Your task to perform on an android device: find photos in the google photos app Image 0: 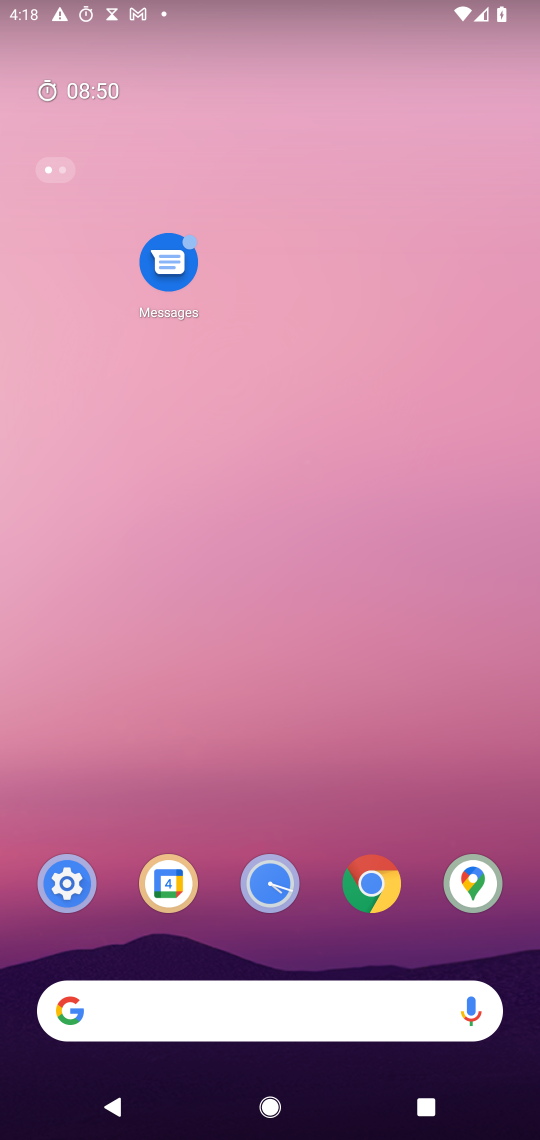
Step 0: drag from (307, 801) to (310, 156)
Your task to perform on an android device: find photos in the google photos app Image 1: 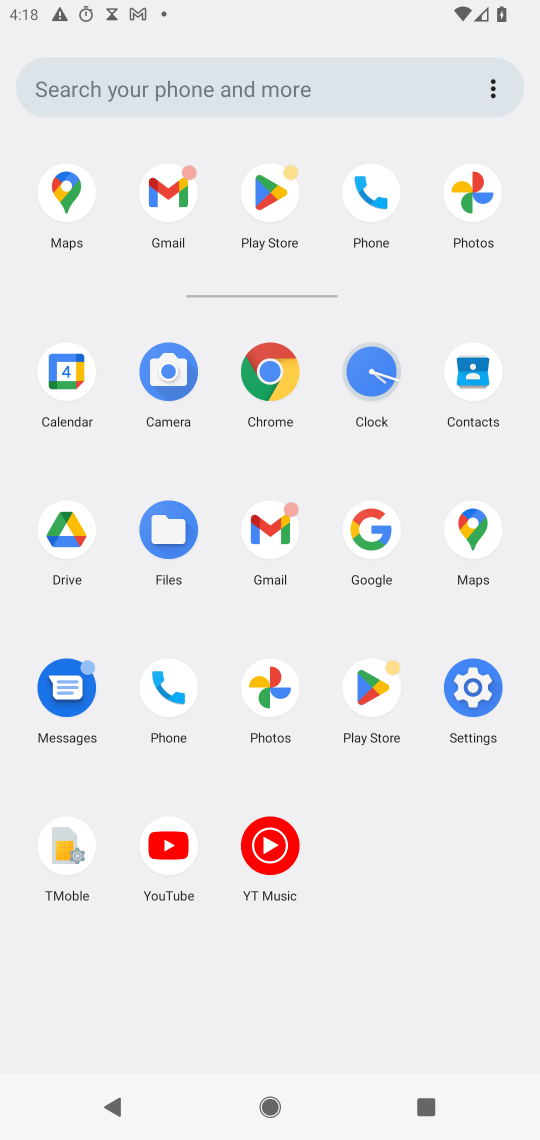
Step 1: click (275, 679)
Your task to perform on an android device: find photos in the google photos app Image 2: 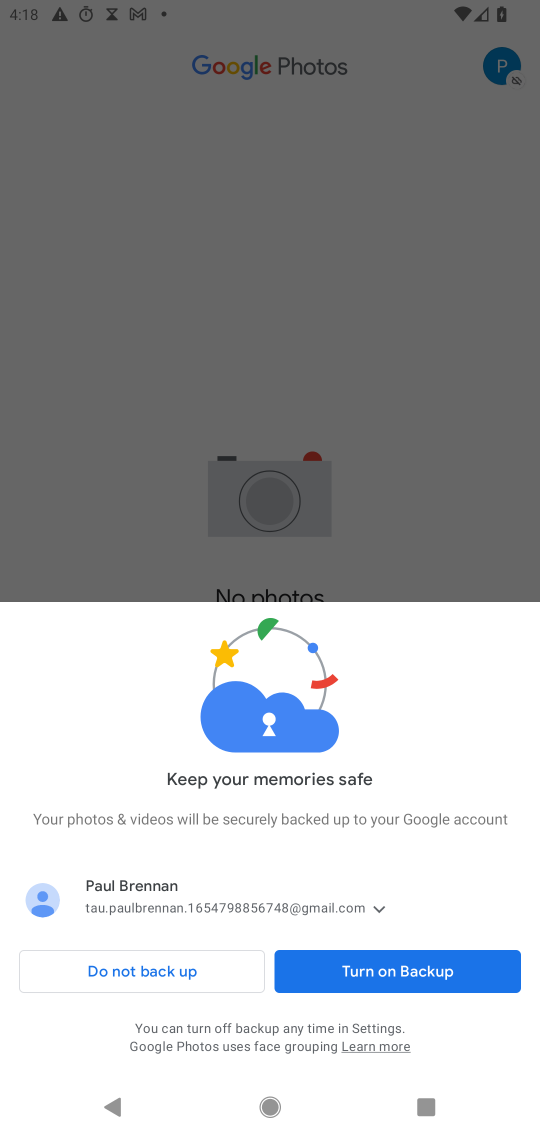
Step 2: click (156, 971)
Your task to perform on an android device: find photos in the google photos app Image 3: 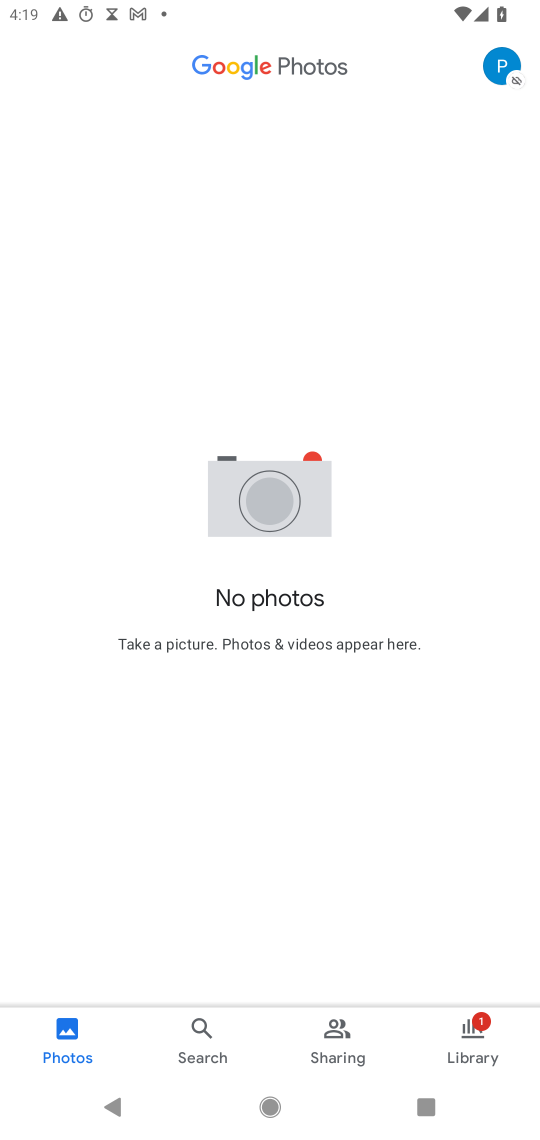
Step 3: task complete